Your task to perform on an android device: change the clock display to show seconds Image 0: 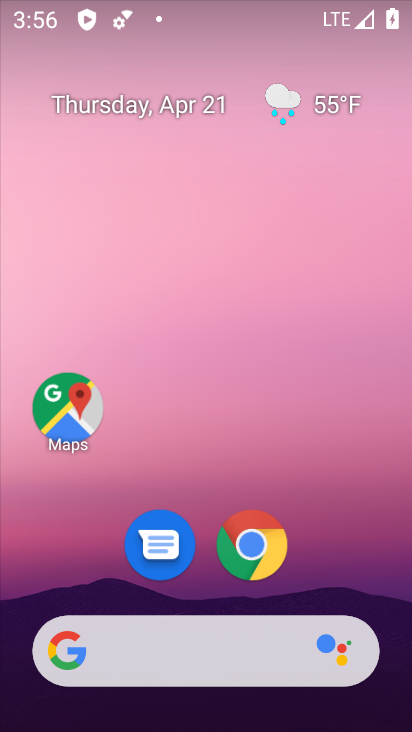
Step 0: drag from (199, 630) to (181, 103)
Your task to perform on an android device: change the clock display to show seconds Image 1: 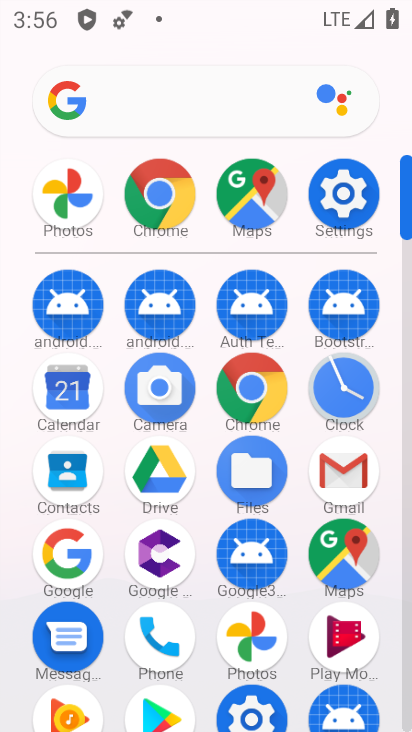
Step 1: click (350, 391)
Your task to perform on an android device: change the clock display to show seconds Image 2: 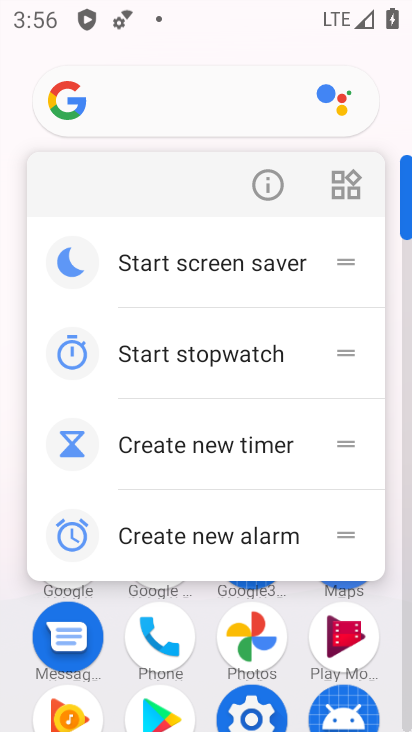
Step 2: click (402, 270)
Your task to perform on an android device: change the clock display to show seconds Image 3: 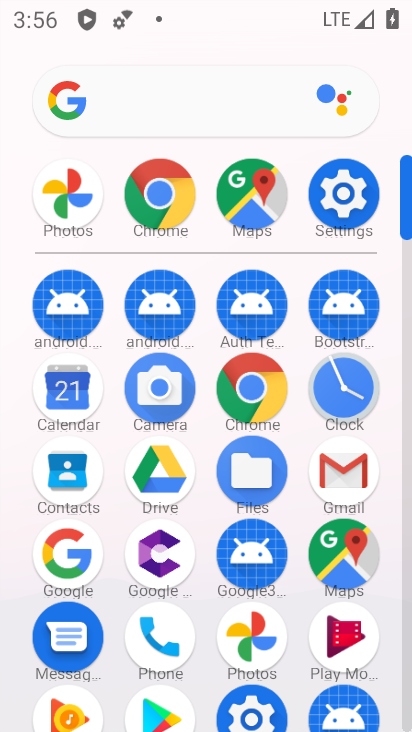
Step 3: click (357, 383)
Your task to perform on an android device: change the clock display to show seconds Image 4: 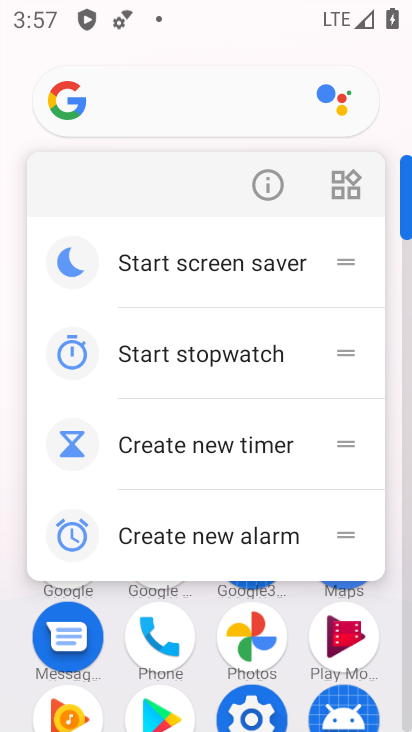
Step 4: click (395, 379)
Your task to perform on an android device: change the clock display to show seconds Image 5: 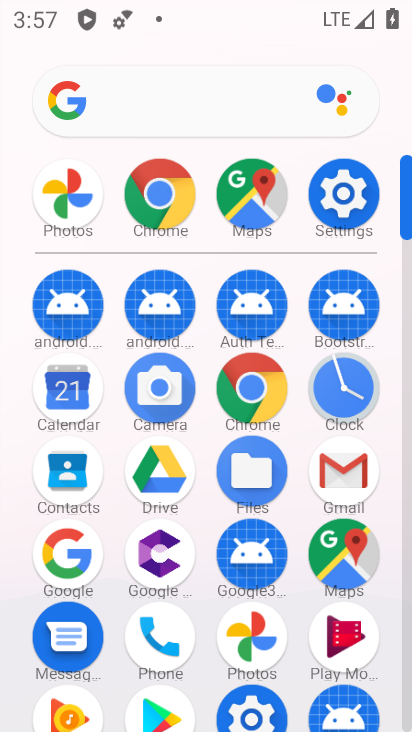
Step 5: click (331, 384)
Your task to perform on an android device: change the clock display to show seconds Image 6: 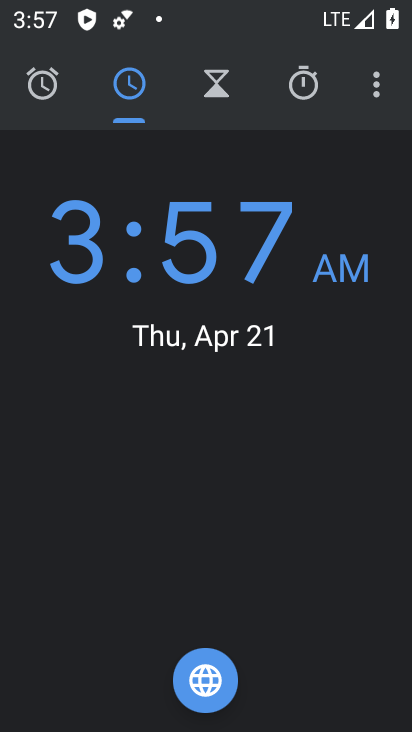
Step 6: click (372, 81)
Your task to perform on an android device: change the clock display to show seconds Image 7: 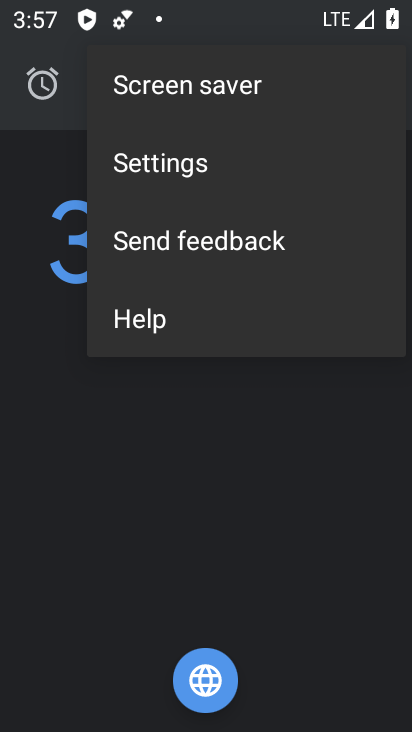
Step 7: click (244, 159)
Your task to perform on an android device: change the clock display to show seconds Image 8: 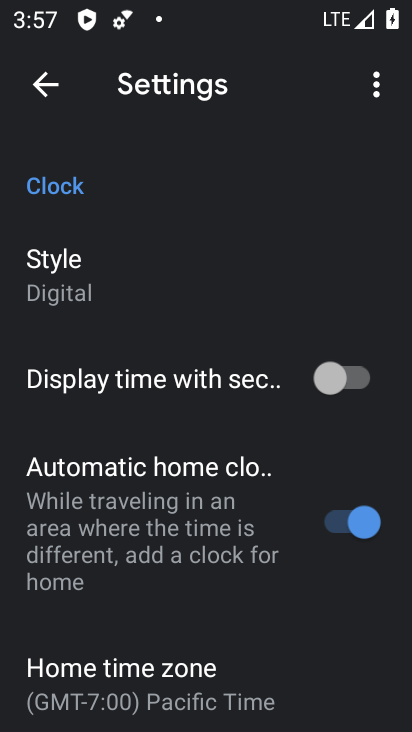
Step 8: click (352, 374)
Your task to perform on an android device: change the clock display to show seconds Image 9: 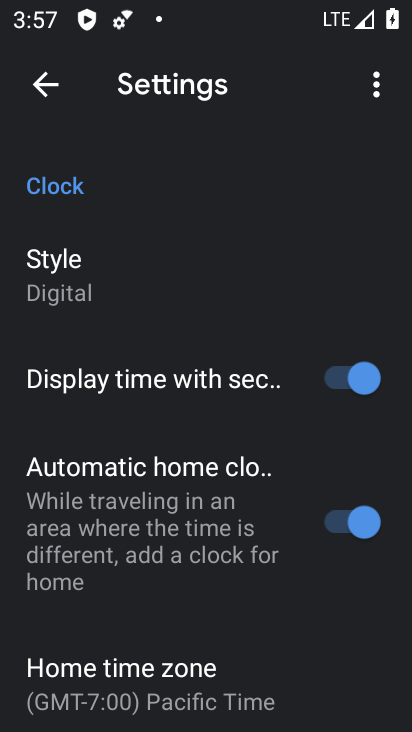
Step 9: task complete